Your task to perform on an android device: open chrome privacy settings Image 0: 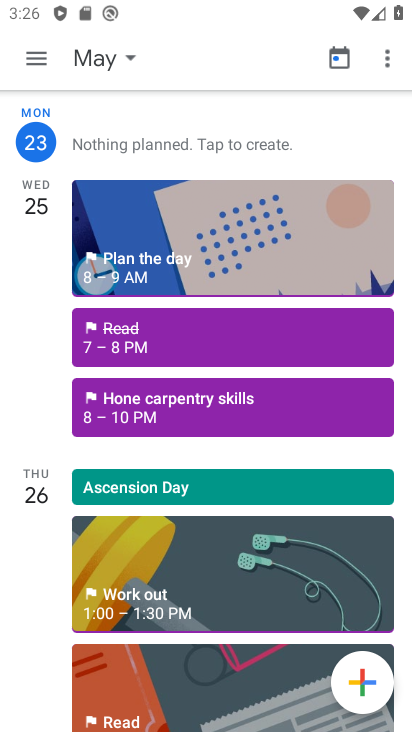
Step 0: press home button
Your task to perform on an android device: open chrome privacy settings Image 1: 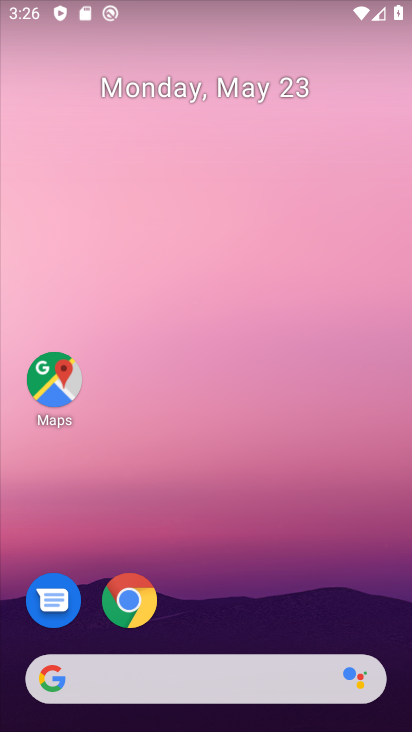
Step 1: click (139, 605)
Your task to perform on an android device: open chrome privacy settings Image 2: 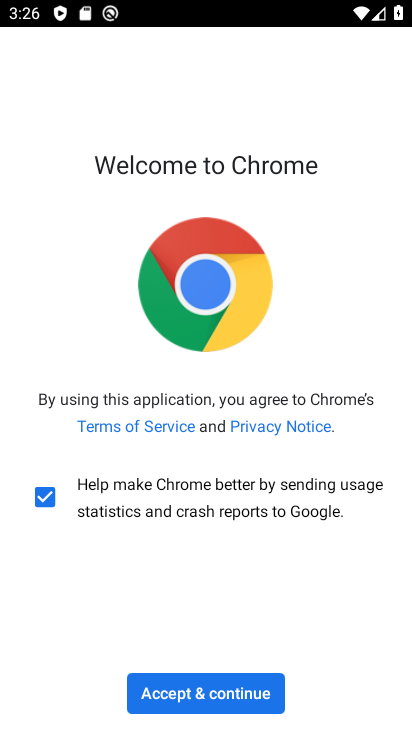
Step 2: click (195, 700)
Your task to perform on an android device: open chrome privacy settings Image 3: 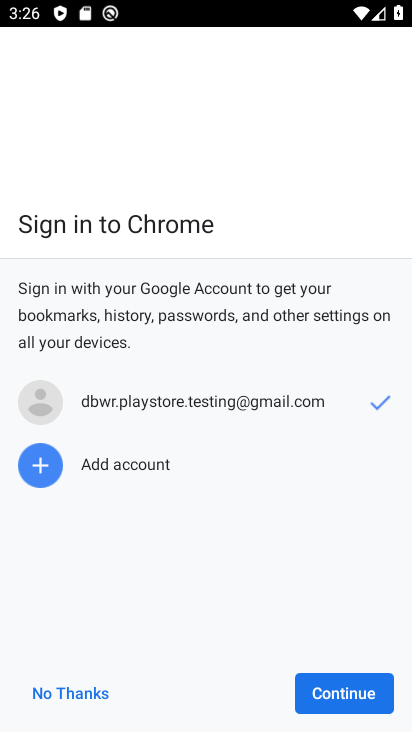
Step 3: click (45, 695)
Your task to perform on an android device: open chrome privacy settings Image 4: 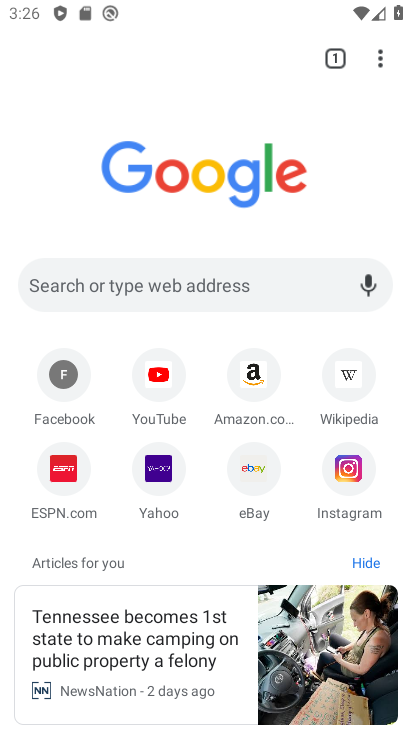
Step 4: click (382, 60)
Your task to perform on an android device: open chrome privacy settings Image 5: 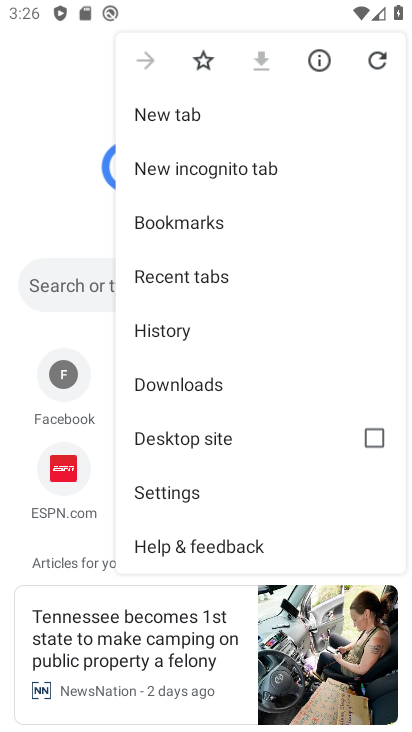
Step 5: click (163, 488)
Your task to perform on an android device: open chrome privacy settings Image 6: 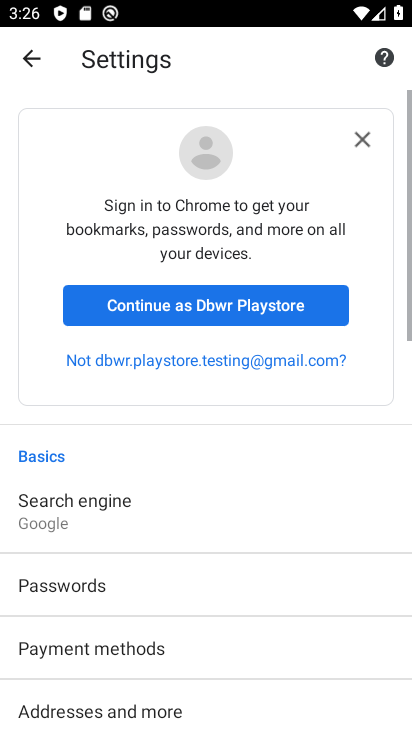
Step 6: drag from (148, 507) to (177, 176)
Your task to perform on an android device: open chrome privacy settings Image 7: 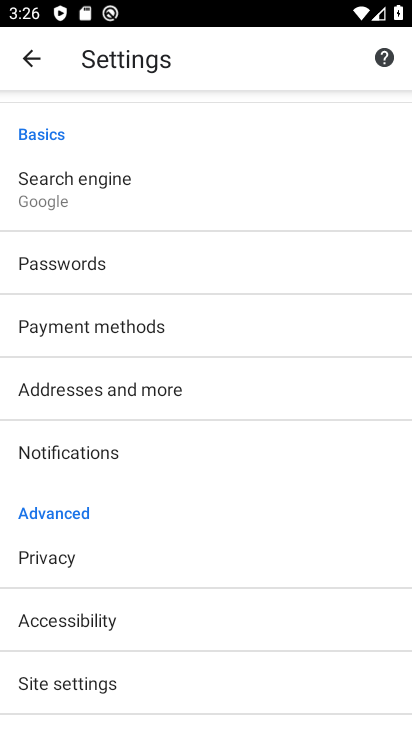
Step 7: click (51, 556)
Your task to perform on an android device: open chrome privacy settings Image 8: 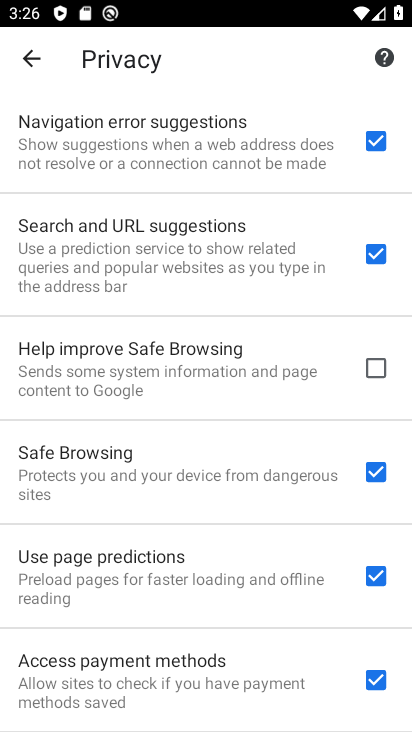
Step 8: task complete